Your task to perform on an android device: Search for Mexican restaurants on Maps Image 0: 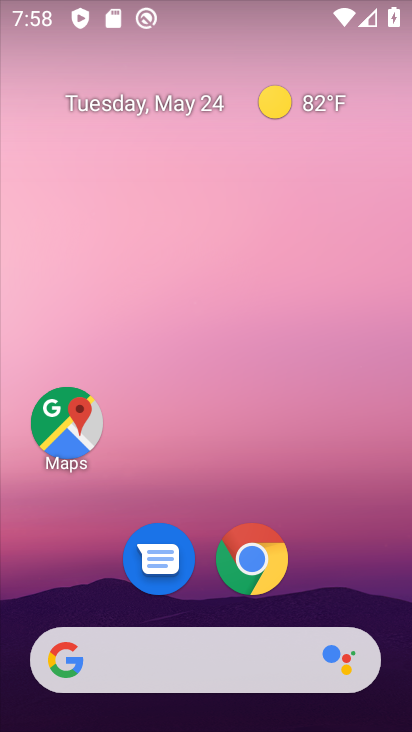
Step 0: drag from (385, 616) to (402, 215)
Your task to perform on an android device: Search for Mexican restaurants on Maps Image 1: 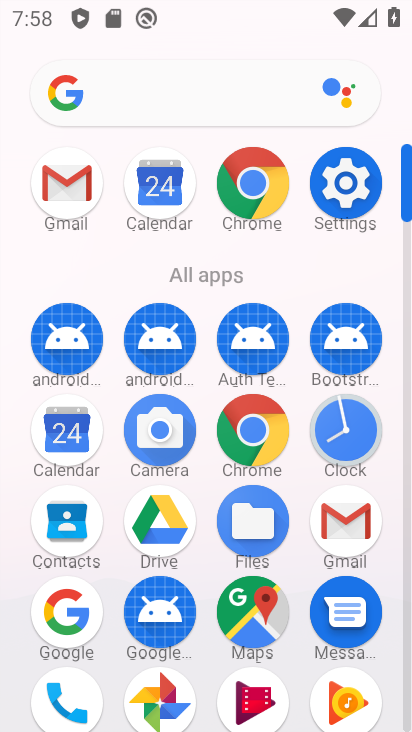
Step 1: click (256, 621)
Your task to perform on an android device: Search for Mexican restaurants on Maps Image 2: 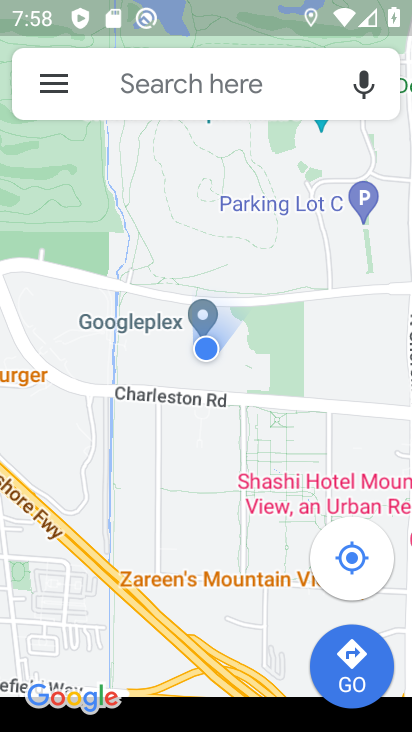
Step 2: click (276, 94)
Your task to perform on an android device: Search for Mexican restaurants on Maps Image 3: 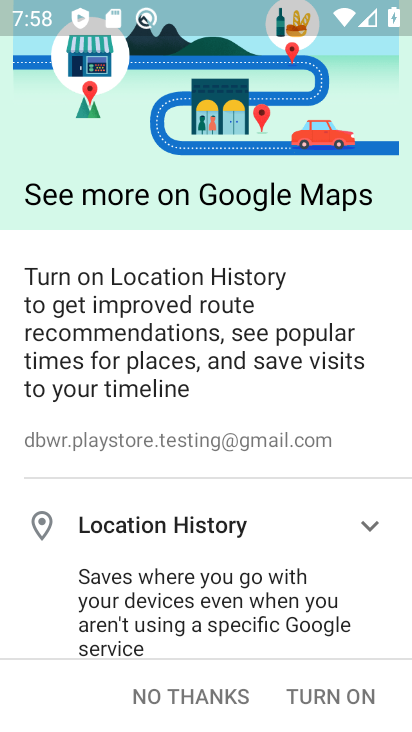
Step 3: click (168, 712)
Your task to perform on an android device: Search for Mexican restaurants on Maps Image 4: 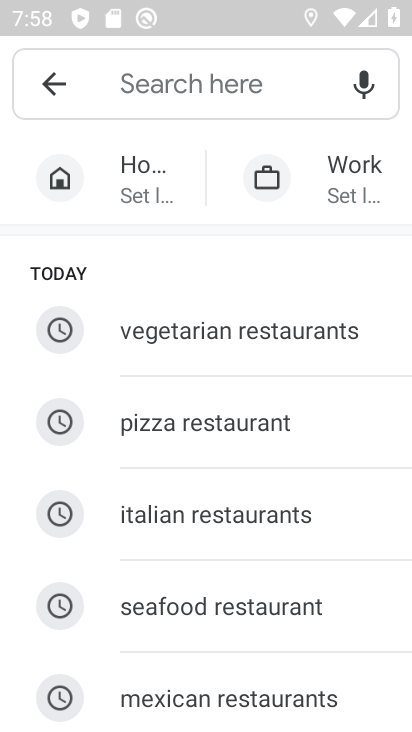
Step 4: click (265, 91)
Your task to perform on an android device: Search for Mexican restaurants on Maps Image 5: 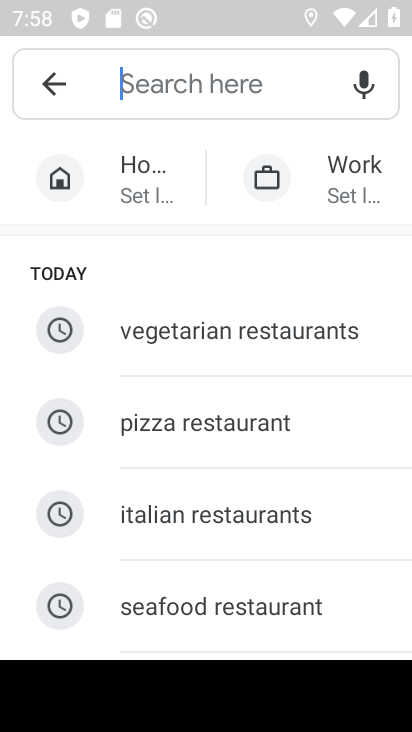
Step 5: type "mixcian restaurants"
Your task to perform on an android device: Search for Mexican restaurants on Maps Image 6: 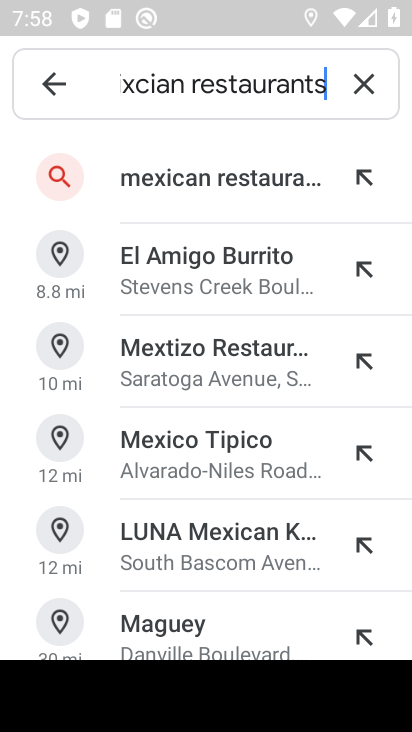
Step 6: click (242, 182)
Your task to perform on an android device: Search for Mexican restaurants on Maps Image 7: 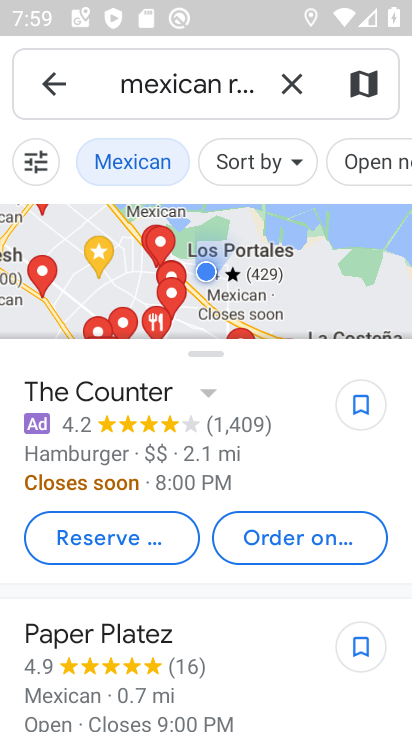
Step 7: task complete